Your task to perform on an android device: open app "Yahoo Mail" (install if not already installed) Image 0: 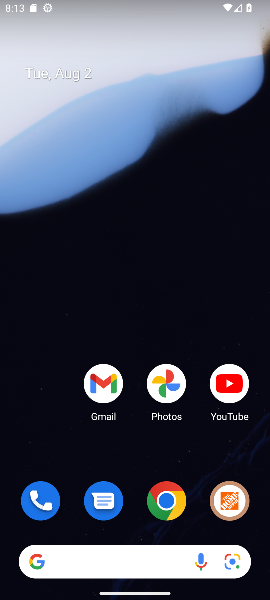
Step 0: drag from (153, 527) to (127, 51)
Your task to perform on an android device: open app "Yahoo Mail" (install if not already installed) Image 1: 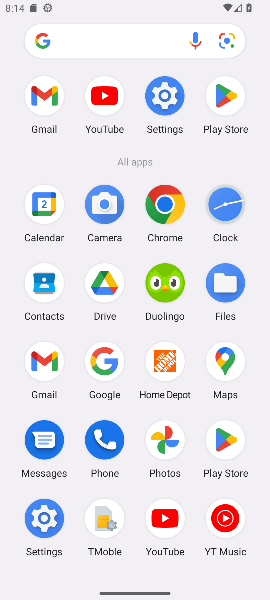
Step 1: click (233, 110)
Your task to perform on an android device: open app "Yahoo Mail" (install if not already installed) Image 2: 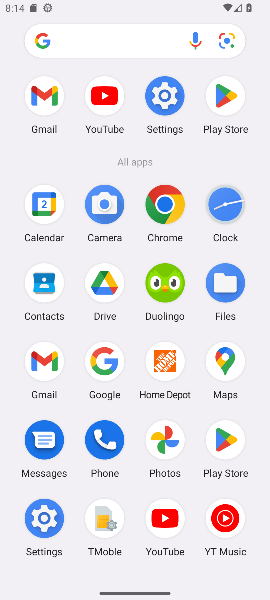
Step 2: click (233, 110)
Your task to perform on an android device: open app "Yahoo Mail" (install if not already installed) Image 3: 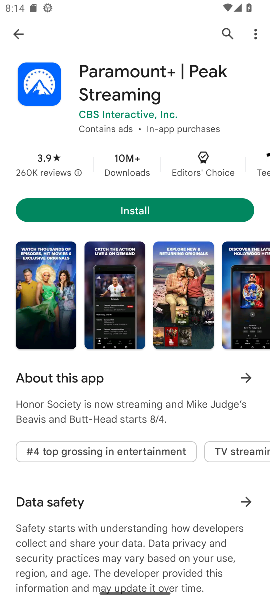
Step 3: drag from (148, 101) to (155, 546)
Your task to perform on an android device: open app "Yahoo Mail" (install if not already installed) Image 4: 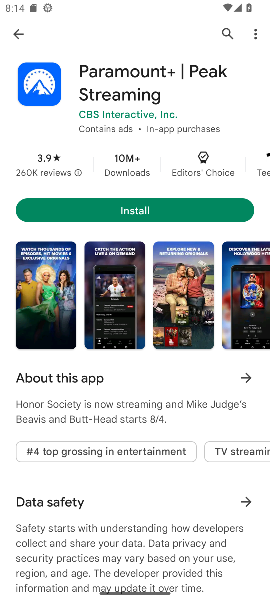
Step 4: drag from (172, 104) to (179, 566)
Your task to perform on an android device: open app "Yahoo Mail" (install if not already installed) Image 5: 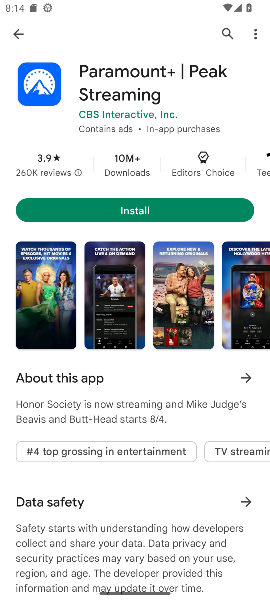
Step 5: drag from (180, 98) to (189, 552)
Your task to perform on an android device: open app "Yahoo Mail" (install if not already installed) Image 6: 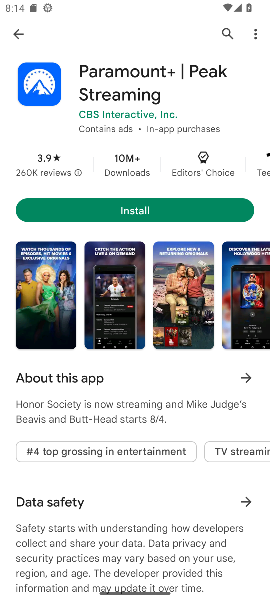
Step 6: drag from (167, 137) to (177, 594)
Your task to perform on an android device: open app "Yahoo Mail" (install if not already installed) Image 7: 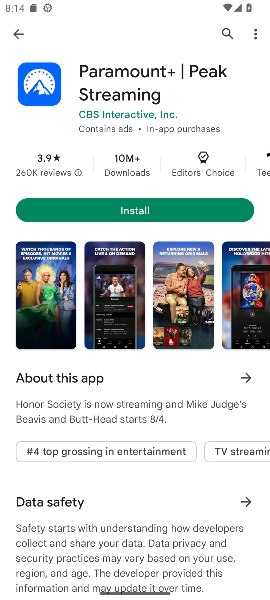
Step 7: drag from (173, 134) to (191, 481)
Your task to perform on an android device: open app "Yahoo Mail" (install if not already installed) Image 8: 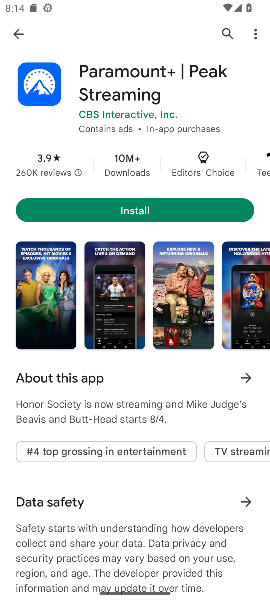
Step 8: drag from (165, 119) to (188, 460)
Your task to perform on an android device: open app "Yahoo Mail" (install if not already installed) Image 9: 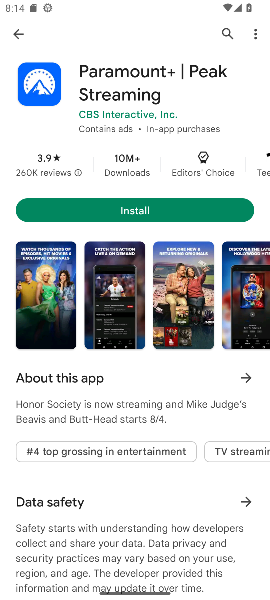
Step 9: click (224, 35)
Your task to perform on an android device: open app "Yahoo Mail" (install if not already installed) Image 10: 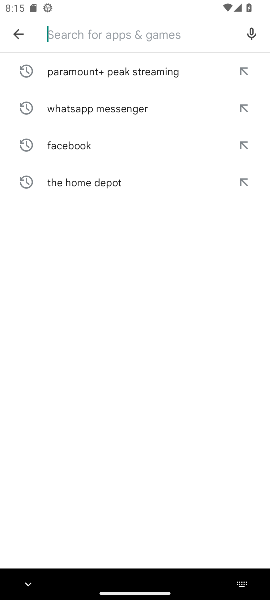
Step 10: click (81, 38)
Your task to perform on an android device: open app "Yahoo Mail" (install if not already installed) Image 11: 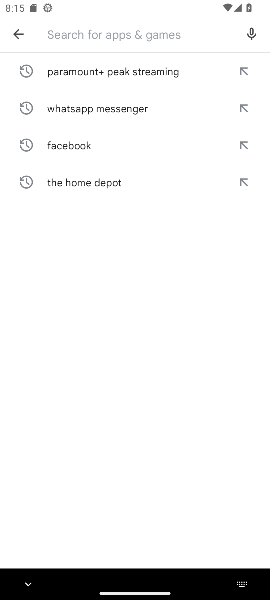
Step 11: type "Yahoo Mail"
Your task to perform on an android device: open app "Yahoo Mail" (install if not already installed) Image 12: 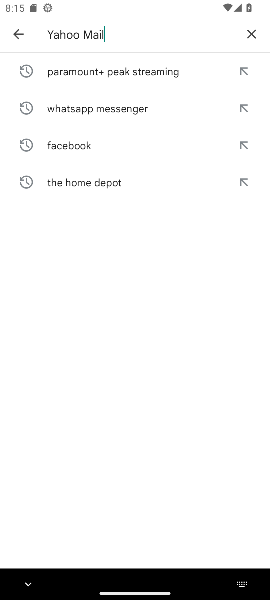
Step 12: type ""
Your task to perform on an android device: open app "Yahoo Mail" (install if not already installed) Image 13: 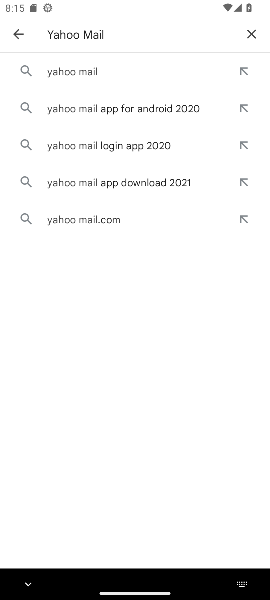
Step 13: click (60, 62)
Your task to perform on an android device: open app "Yahoo Mail" (install if not already installed) Image 14: 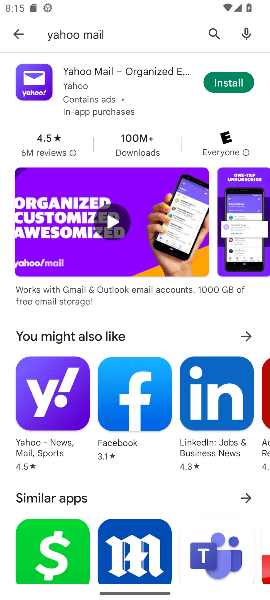
Step 14: drag from (99, 81) to (185, 475)
Your task to perform on an android device: open app "Yahoo Mail" (install if not already installed) Image 15: 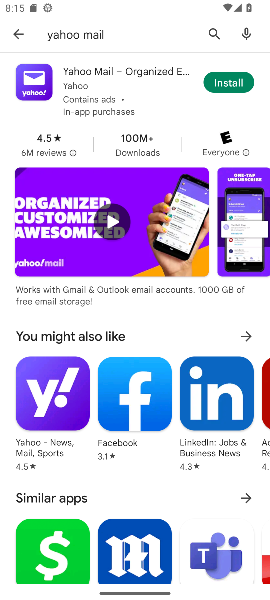
Step 15: click (86, 73)
Your task to perform on an android device: open app "Yahoo Mail" (install if not already installed) Image 16: 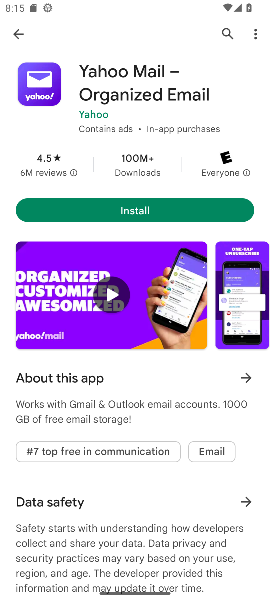
Step 16: click (139, 217)
Your task to perform on an android device: open app "Yahoo Mail" (install if not already installed) Image 17: 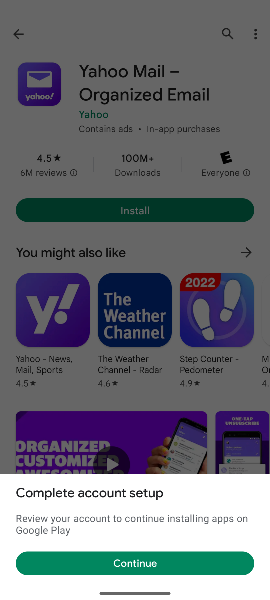
Step 17: click (172, 558)
Your task to perform on an android device: open app "Yahoo Mail" (install if not already installed) Image 18: 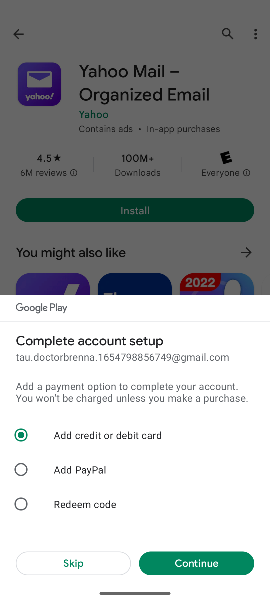
Step 18: click (86, 567)
Your task to perform on an android device: open app "Yahoo Mail" (install if not already installed) Image 19: 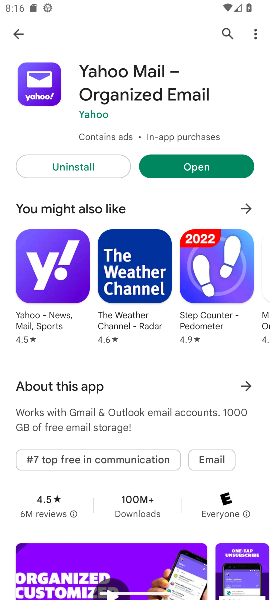
Step 19: drag from (137, 213) to (259, 269)
Your task to perform on an android device: open app "Yahoo Mail" (install if not already installed) Image 20: 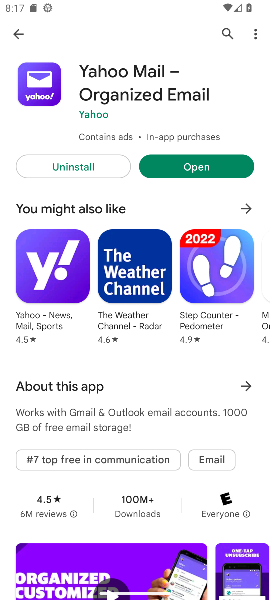
Step 20: drag from (141, 135) to (201, 433)
Your task to perform on an android device: open app "Yahoo Mail" (install if not already installed) Image 21: 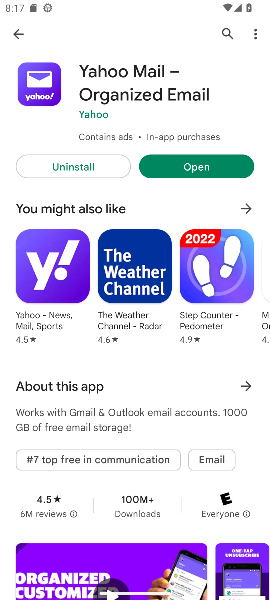
Step 21: click (200, 160)
Your task to perform on an android device: open app "Yahoo Mail" (install if not already installed) Image 22: 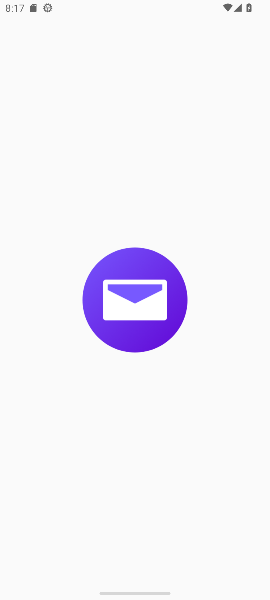
Step 22: task complete